Your task to perform on an android device: Open Reddit.com Image 0: 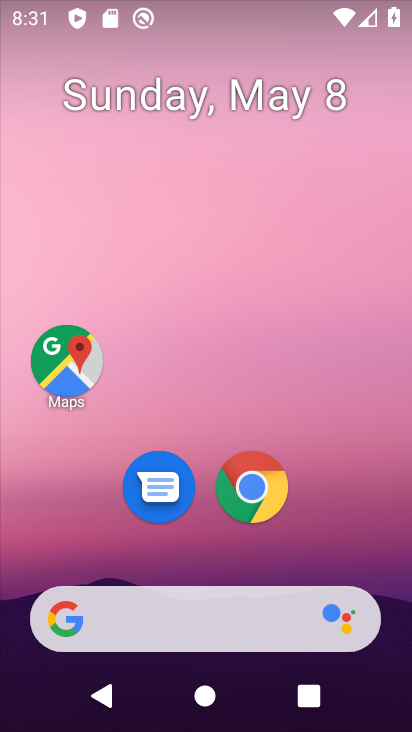
Step 0: click (250, 488)
Your task to perform on an android device: Open Reddit.com Image 1: 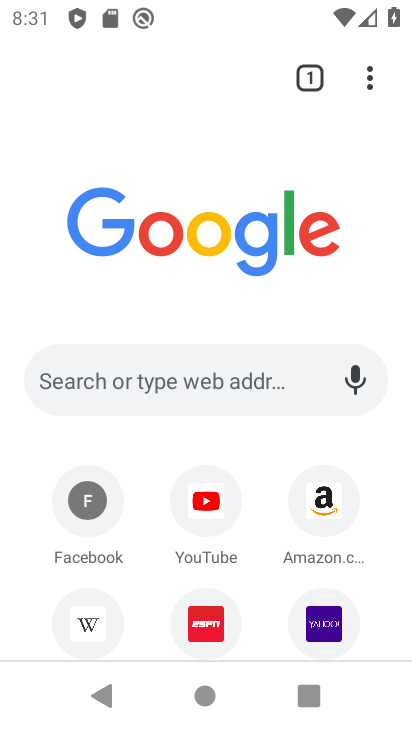
Step 1: click (201, 381)
Your task to perform on an android device: Open Reddit.com Image 2: 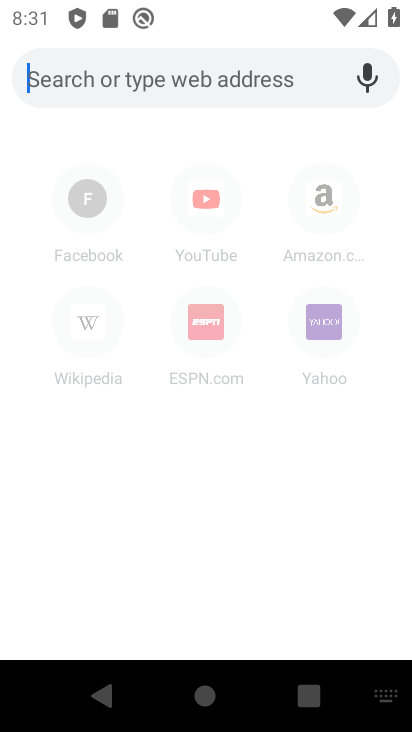
Step 2: type "Reddit.com"
Your task to perform on an android device: Open Reddit.com Image 3: 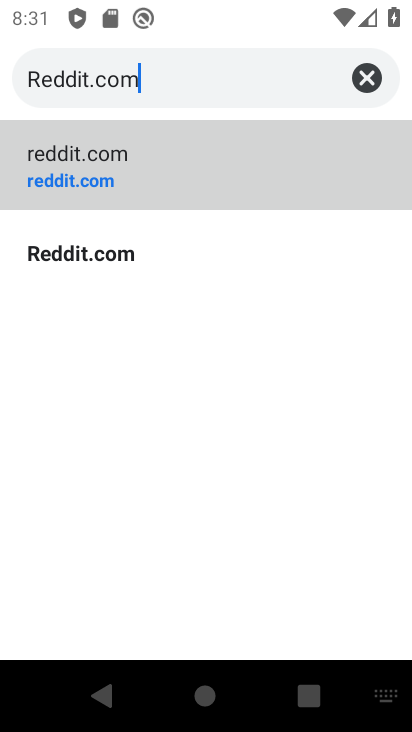
Step 3: click (150, 168)
Your task to perform on an android device: Open Reddit.com Image 4: 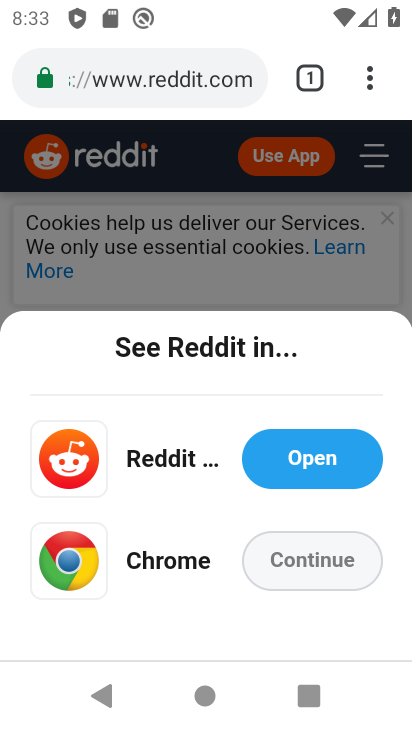
Step 4: task complete